Your task to perform on an android device: Go to privacy settings Image 0: 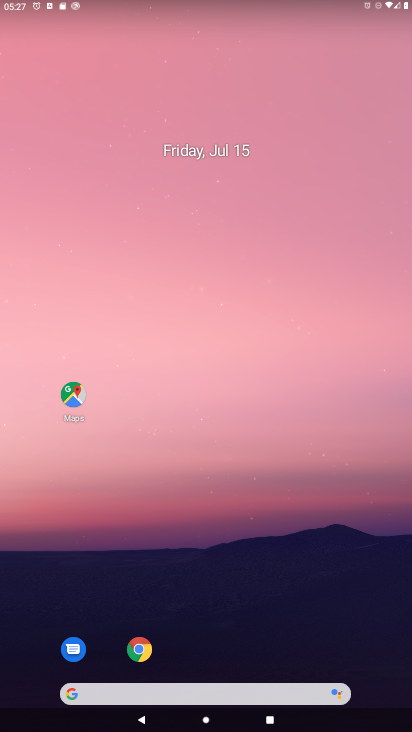
Step 0: drag from (386, 662) to (340, 143)
Your task to perform on an android device: Go to privacy settings Image 1: 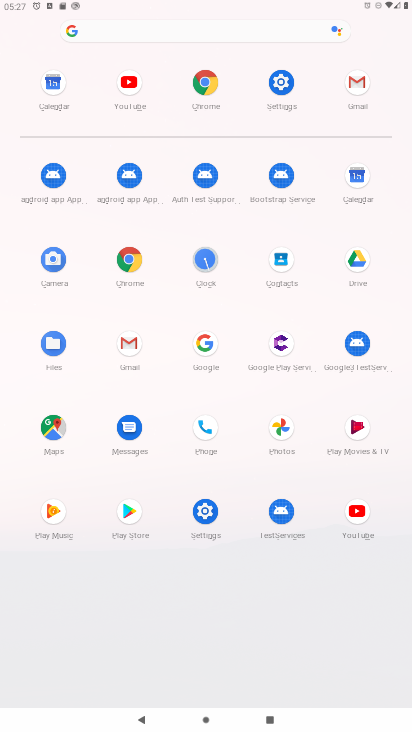
Step 1: click (205, 512)
Your task to perform on an android device: Go to privacy settings Image 2: 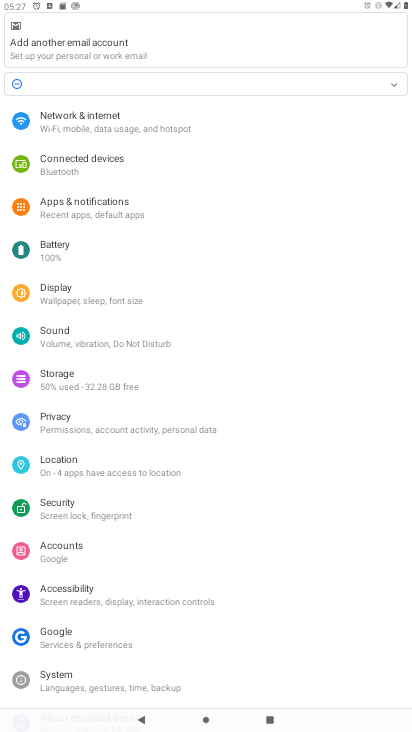
Step 2: click (52, 423)
Your task to perform on an android device: Go to privacy settings Image 3: 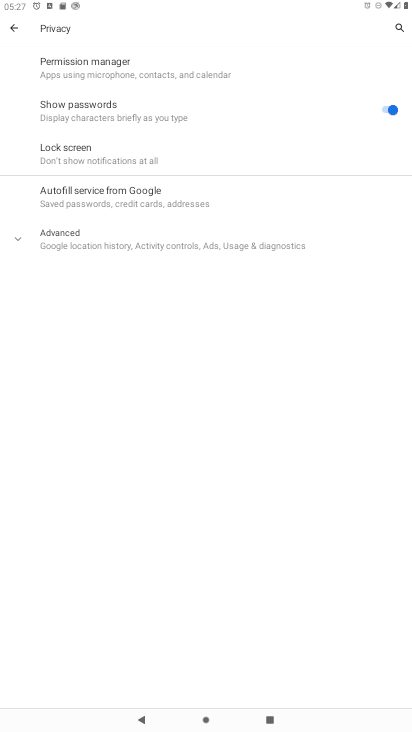
Step 3: click (14, 239)
Your task to perform on an android device: Go to privacy settings Image 4: 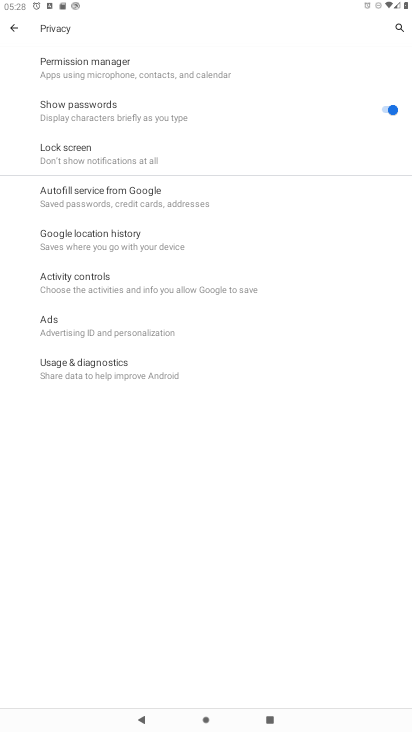
Step 4: task complete